Your task to perform on an android device: Open display settings Image 0: 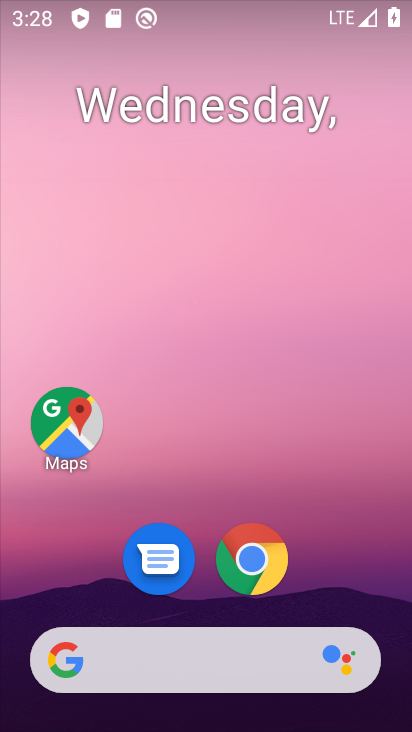
Step 0: drag from (318, 507) to (262, 138)
Your task to perform on an android device: Open display settings Image 1: 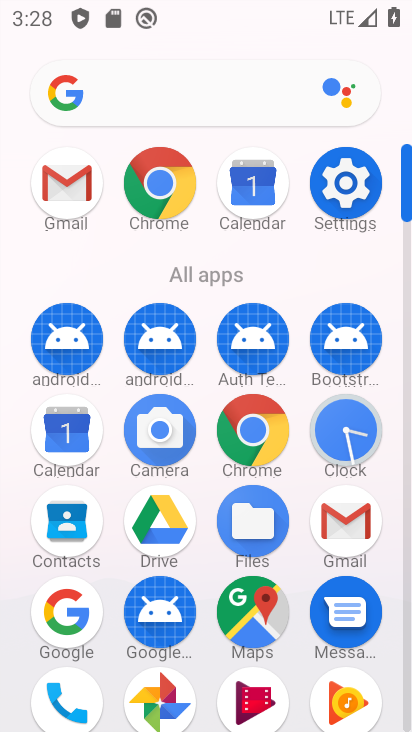
Step 1: click (364, 168)
Your task to perform on an android device: Open display settings Image 2: 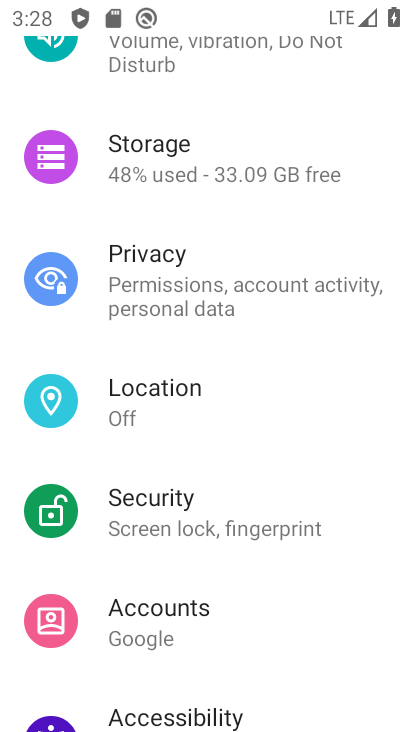
Step 2: drag from (244, 645) to (292, 85)
Your task to perform on an android device: Open display settings Image 3: 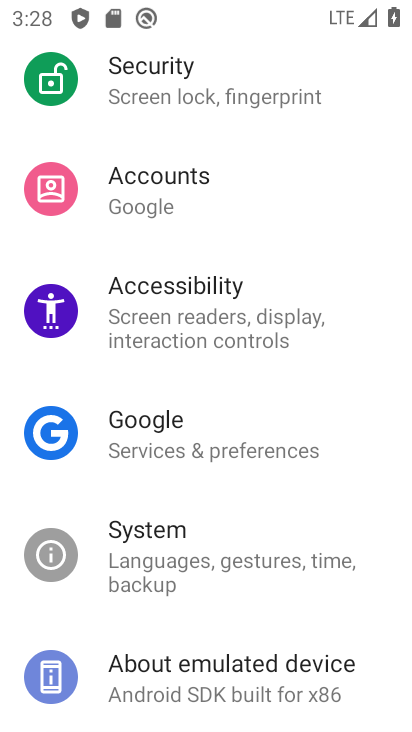
Step 3: drag from (245, 226) to (239, 677)
Your task to perform on an android device: Open display settings Image 4: 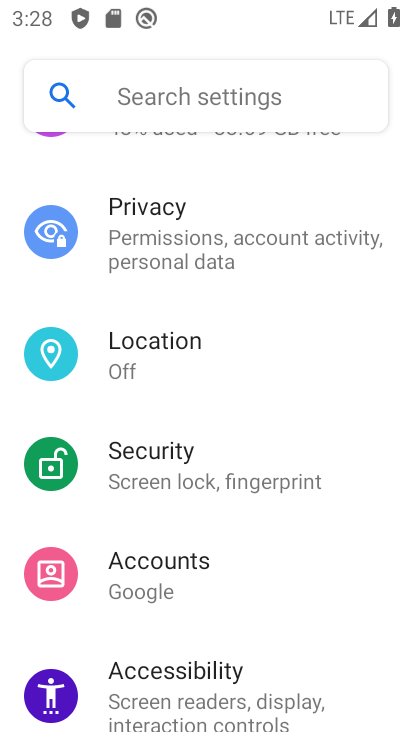
Step 4: drag from (219, 230) to (232, 609)
Your task to perform on an android device: Open display settings Image 5: 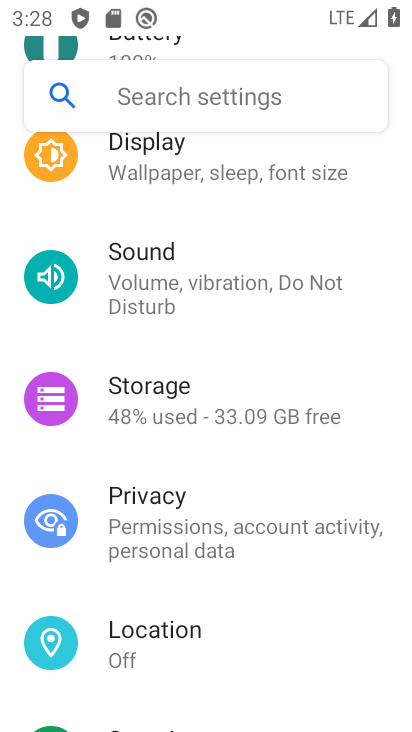
Step 5: drag from (224, 269) to (229, 606)
Your task to perform on an android device: Open display settings Image 6: 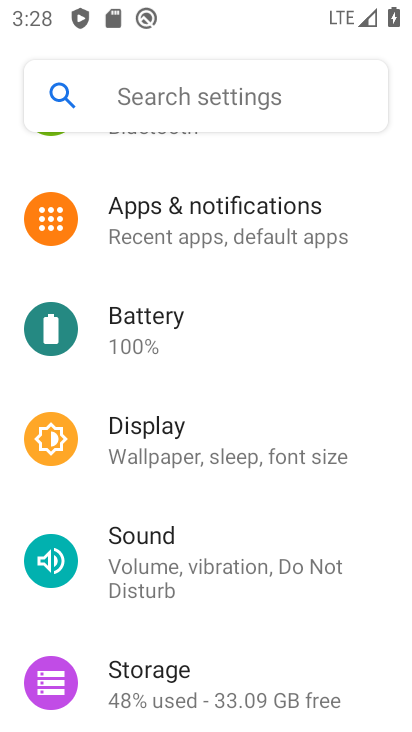
Step 6: click (181, 450)
Your task to perform on an android device: Open display settings Image 7: 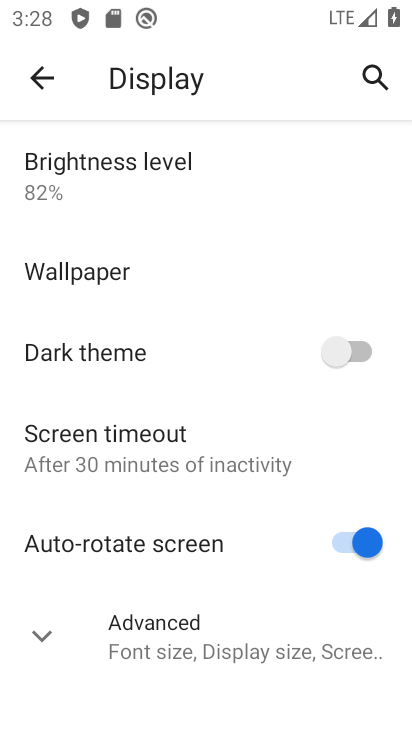
Step 7: task complete